Your task to perform on an android device: uninstall "Fetch Rewards" Image 0: 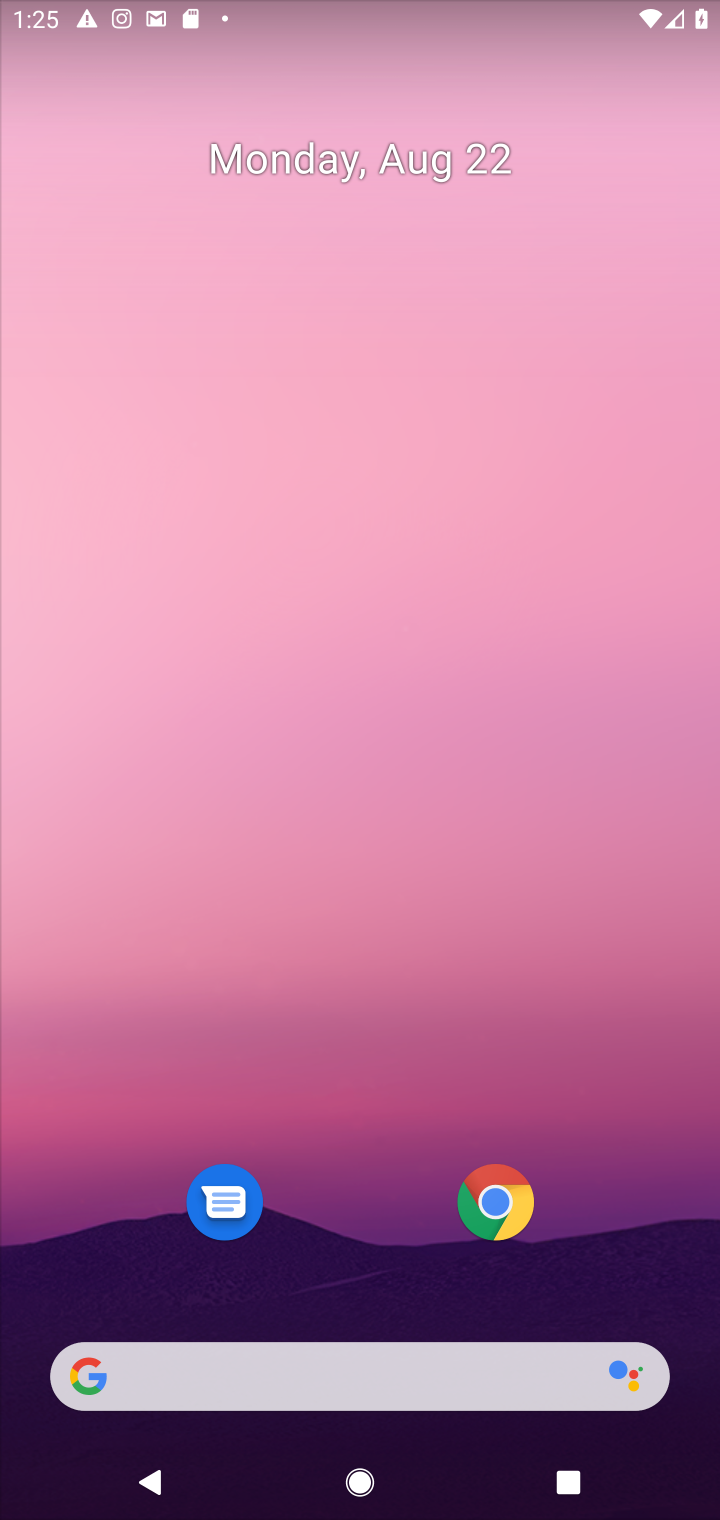
Step 0: drag from (365, 1143) to (382, 154)
Your task to perform on an android device: uninstall "Fetch Rewards" Image 1: 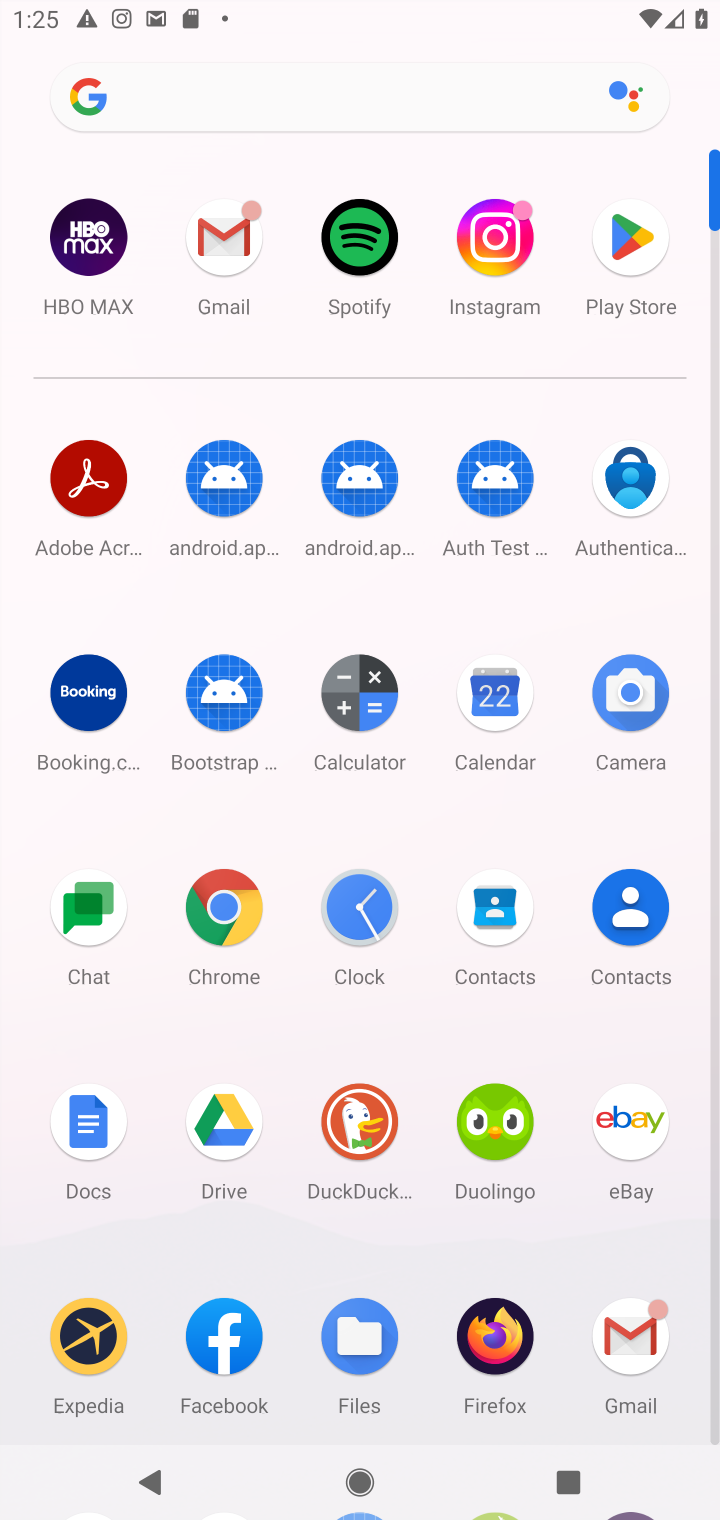
Step 1: click (639, 244)
Your task to perform on an android device: uninstall "Fetch Rewards" Image 2: 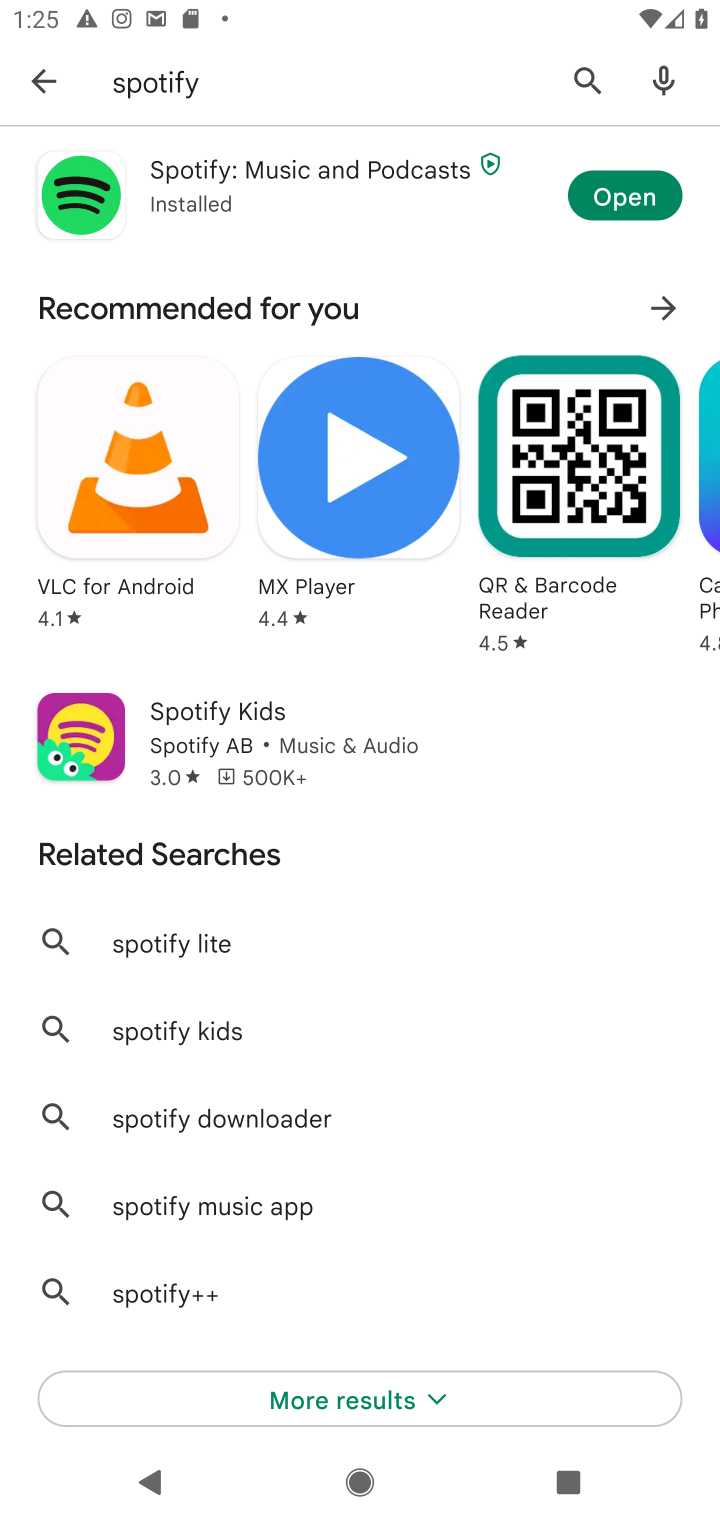
Step 2: click (580, 64)
Your task to perform on an android device: uninstall "Fetch Rewards" Image 3: 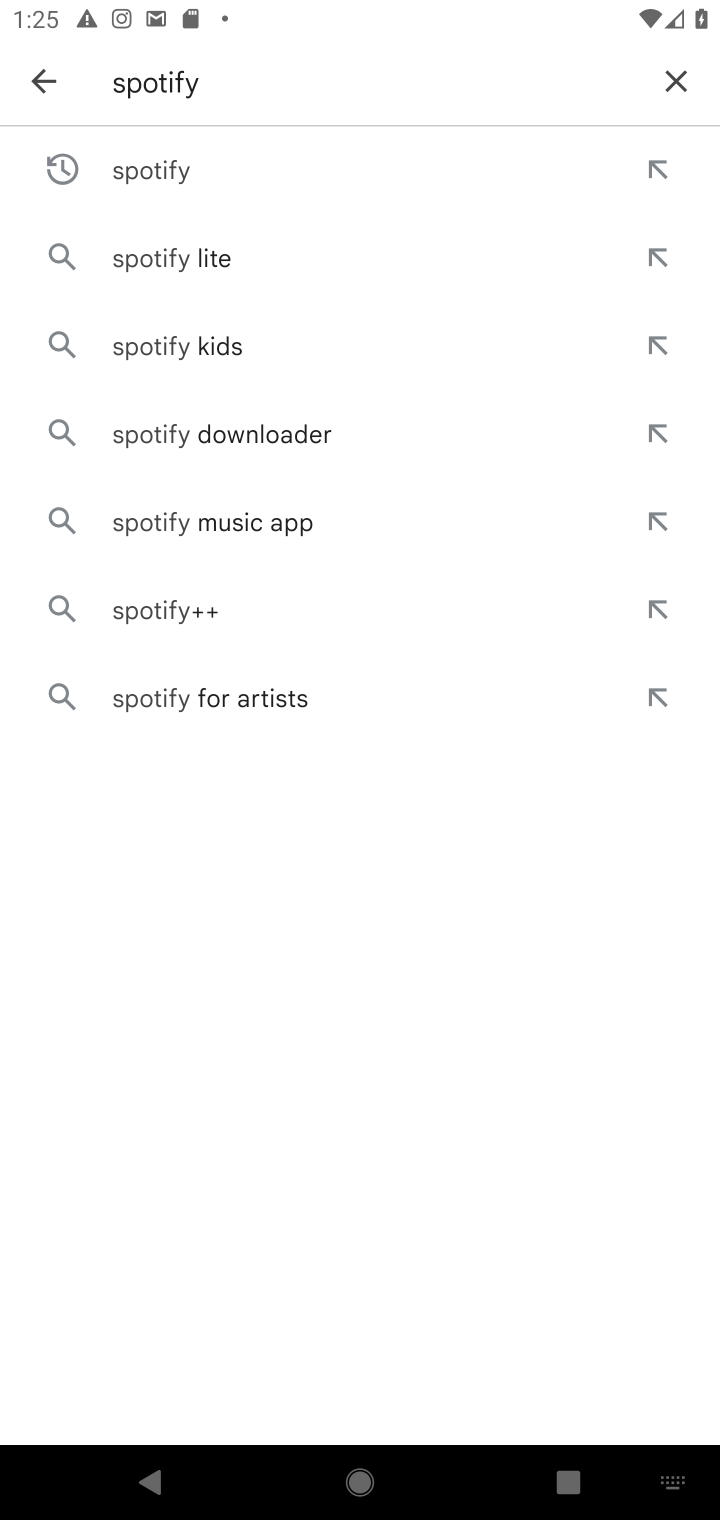
Step 3: click (662, 74)
Your task to perform on an android device: uninstall "Fetch Rewards" Image 4: 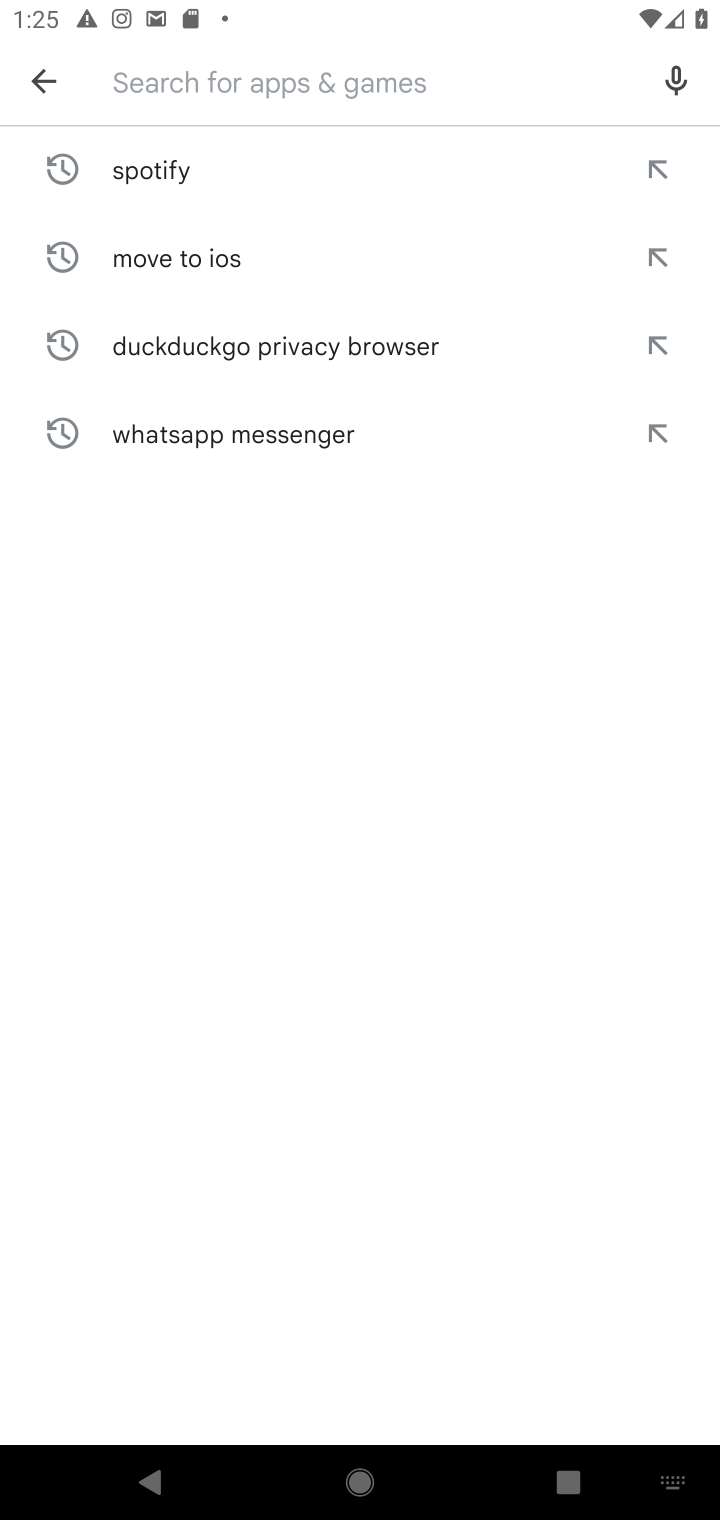
Step 4: type "Fetch Rewardss"
Your task to perform on an android device: uninstall "Fetch Rewards" Image 5: 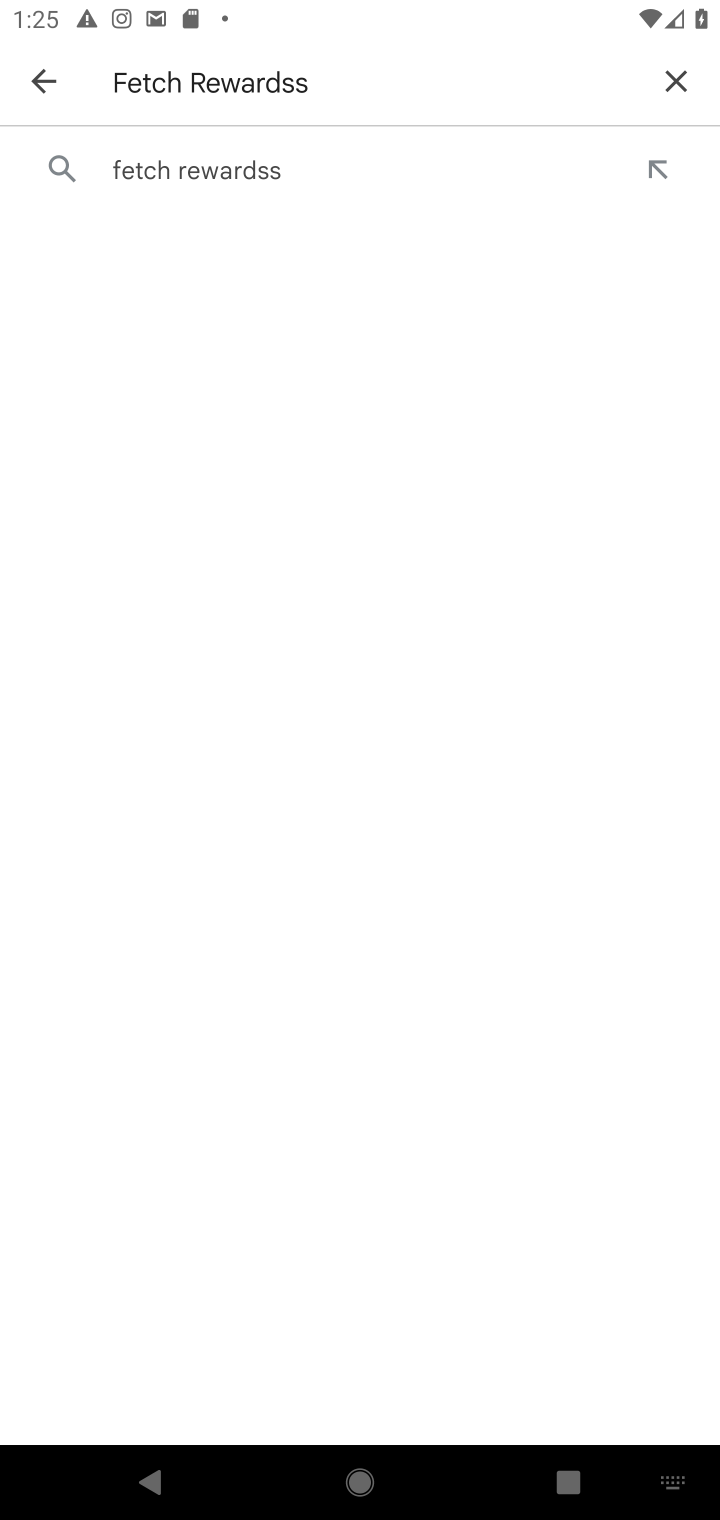
Step 5: click (154, 168)
Your task to perform on an android device: uninstall "Fetch Rewards" Image 6: 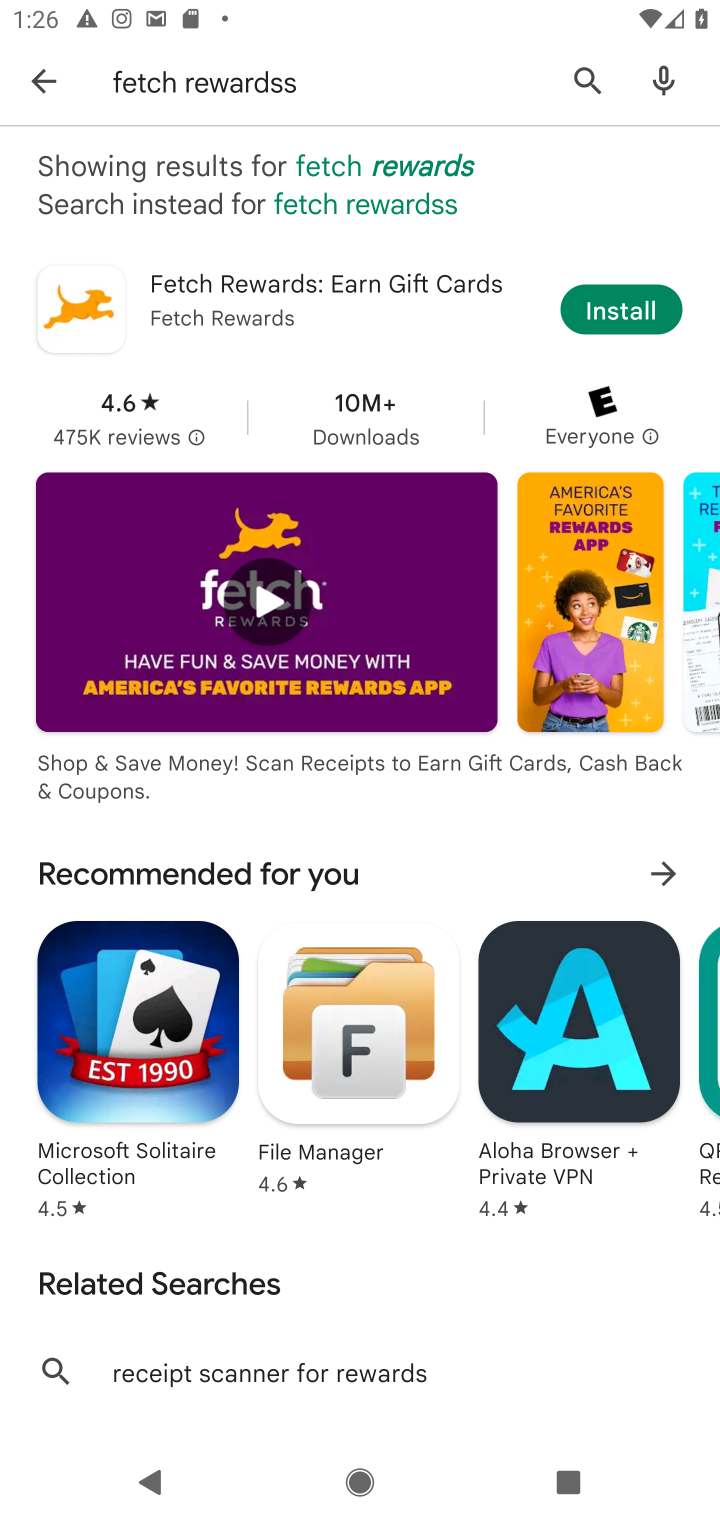
Step 6: click (335, 293)
Your task to perform on an android device: uninstall "Fetch Rewards" Image 7: 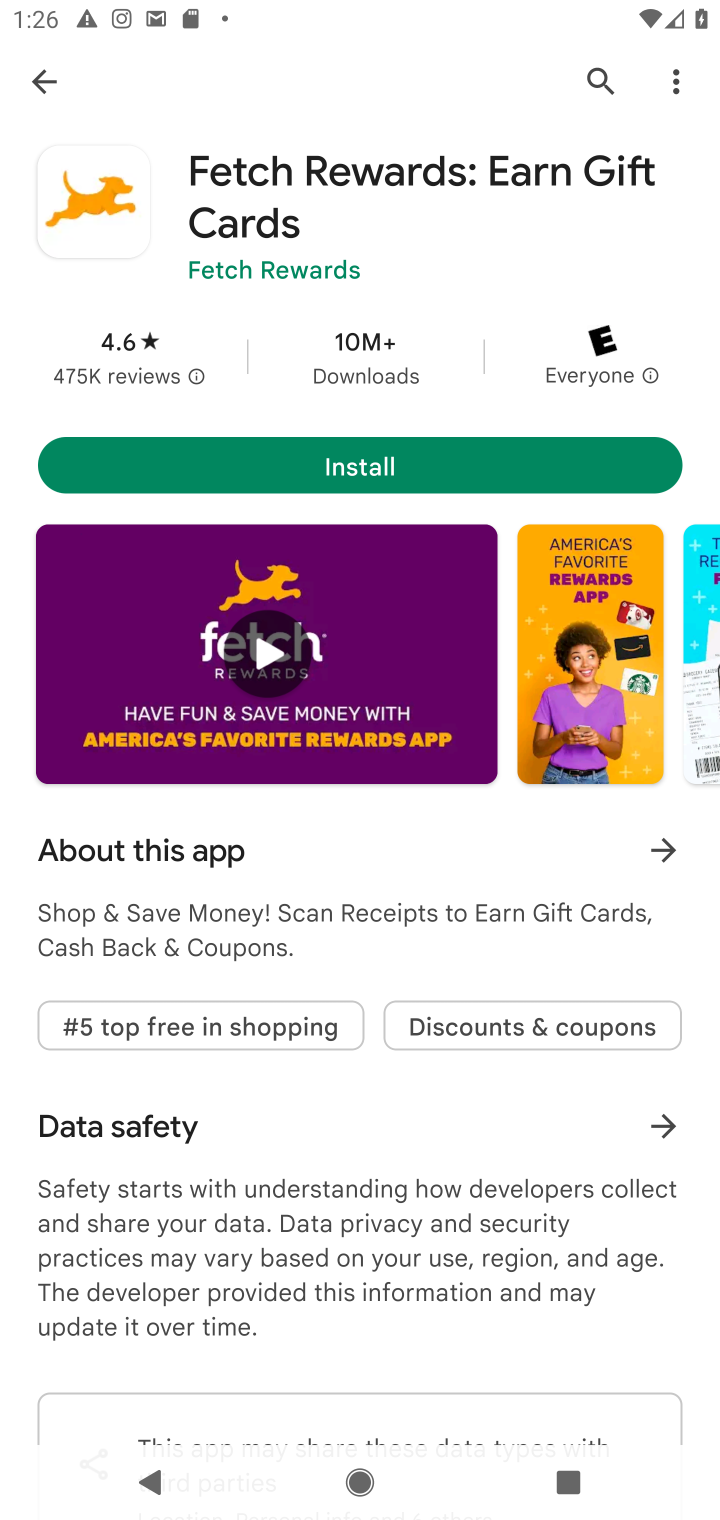
Step 7: task complete